Your task to perform on an android device: see tabs open on other devices in the chrome app Image 0: 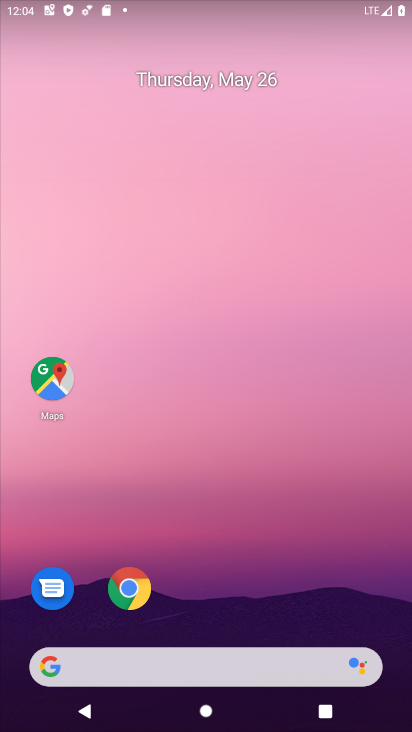
Step 0: drag from (246, 582) to (217, 54)
Your task to perform on an android device: see tabs open on other devices in the chrome app Image 1: 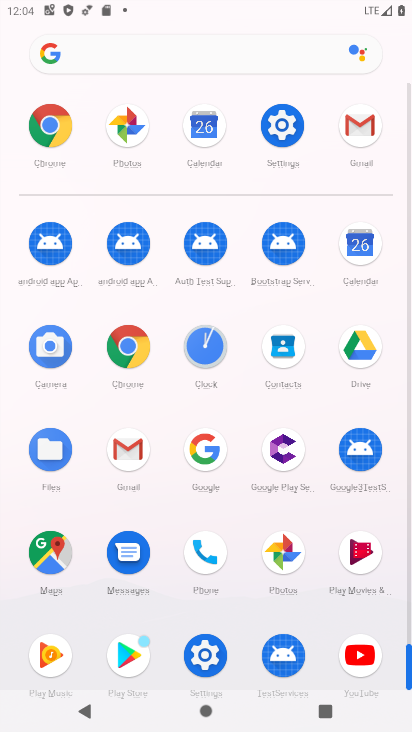
Step 1: drag from (5, 582) to (20, 286)
Your task to perform on an android device: see tabs open on other devices in the chrome app Image 2: 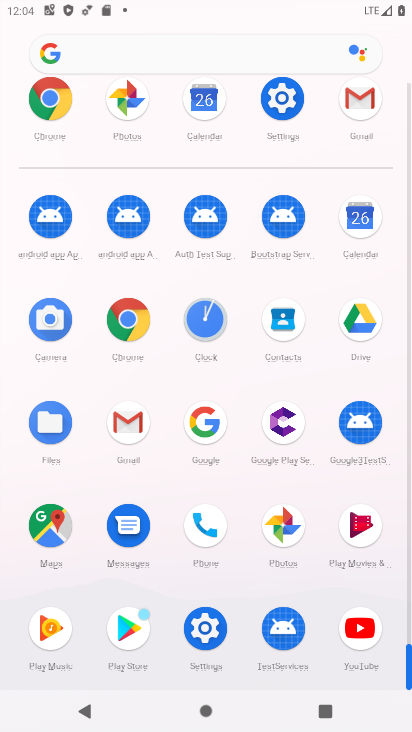
Step 2: click (126, 316)
Your task to perform on an android device: see tabs open on other devices in the chrome app Image 3: 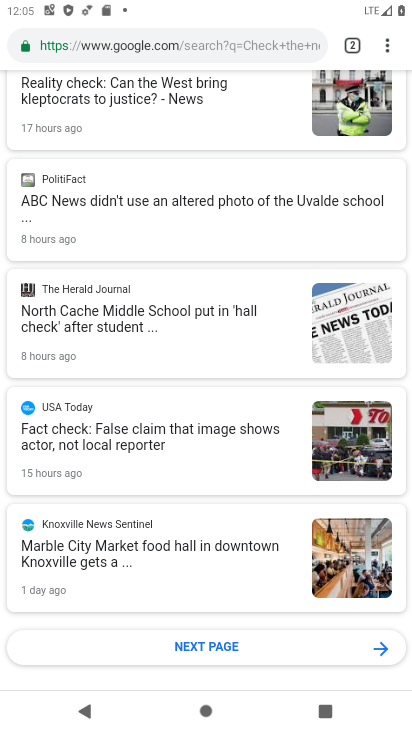
Step 3: task complete